Your task to perform on an android device: Do I have any events today? Image 0: 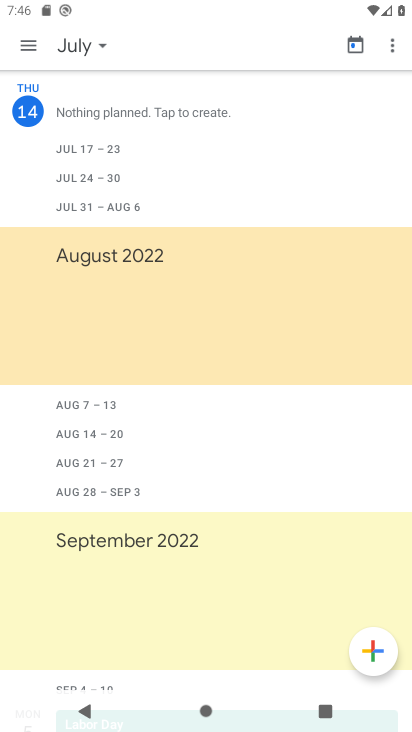
Step 0: press home button
Your task to perform on an android device: Do I have any events today? Image 1: 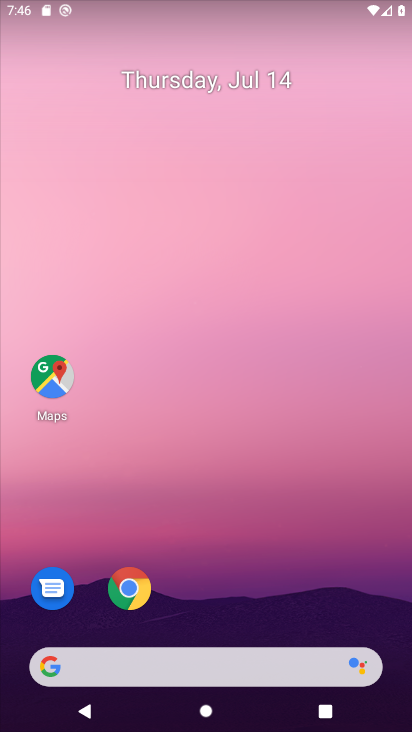
Step 1: drag from (311, 602) to (377, 79)
Your task to perform on an android device: Do I have any events today? Image 2: 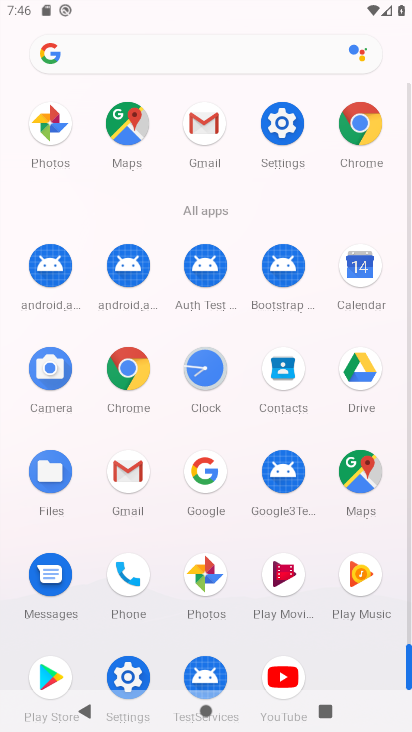
Step 2: click (369, 276)
Your task to perform on an android device: Do I have any events today? Image 3: 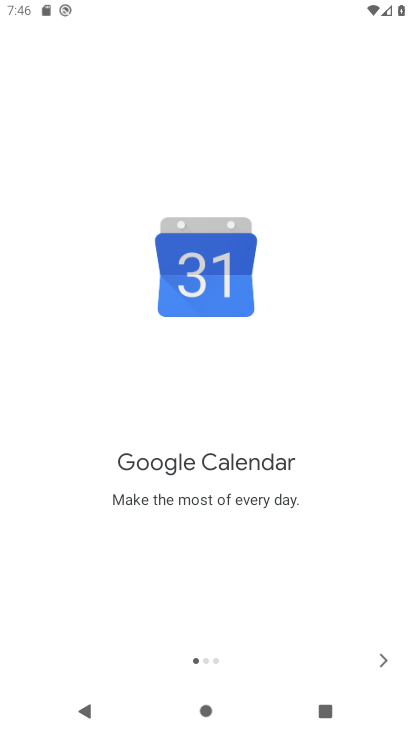
Step 3: click (384, 665)
Your task to perform on an android device: Do I have any events today? Image 4: 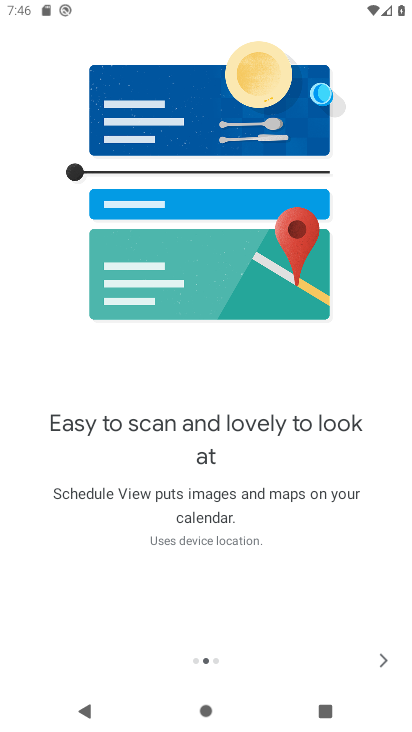
Step 4: click (384, 665)
Your task to perform on an android device: Do I have any events today? Image 5: 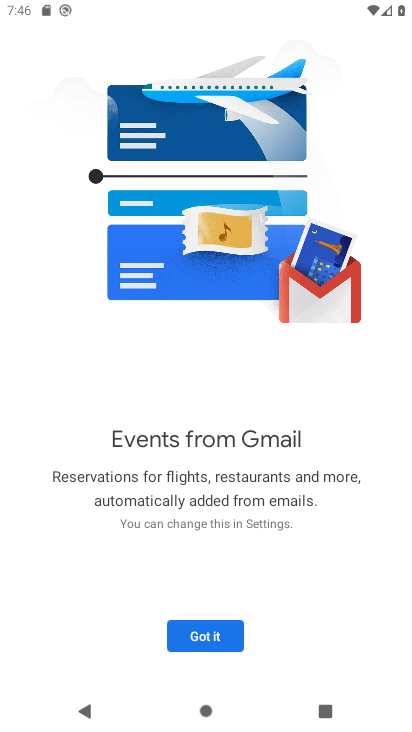
Step 5: click (226, 635)
Your task to perform on an android device: Do I have any events today? Image 6: 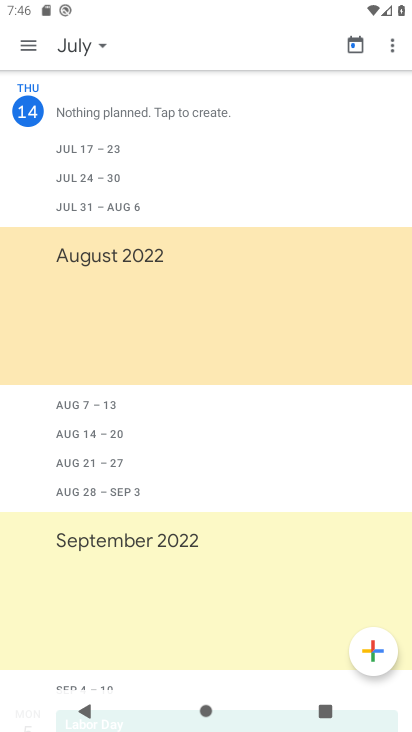
Step 6: click (100, 44)
Your task to perform on an android device: Do I have any events today? Image 7: 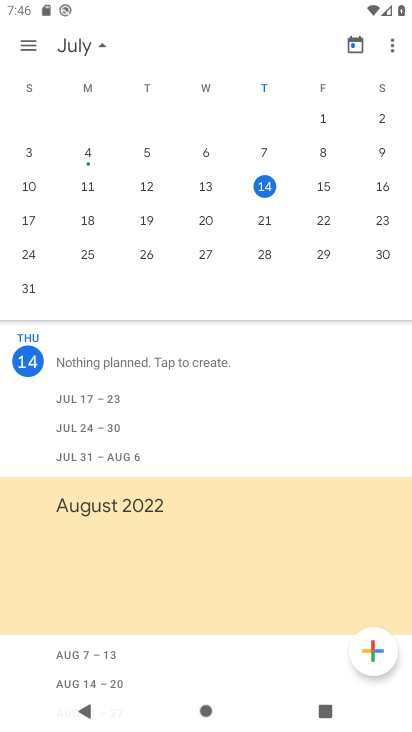
Step 7: click (327, 186)
Your task to perform on an android device: Do I have any events today? Image 8: 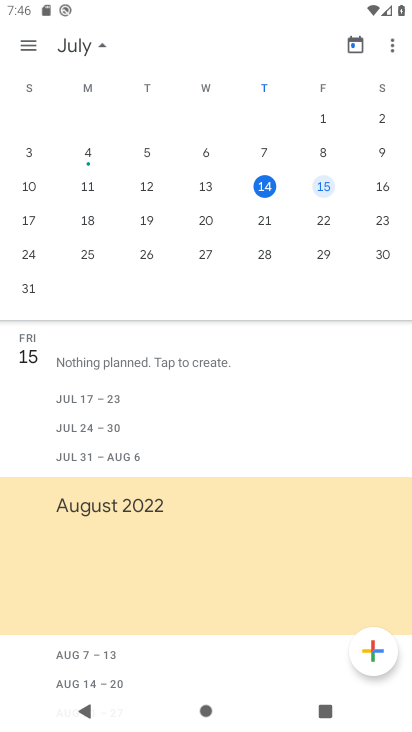
Step 8: task complete